Your task to perform on an android device: Go to settings Image 0: 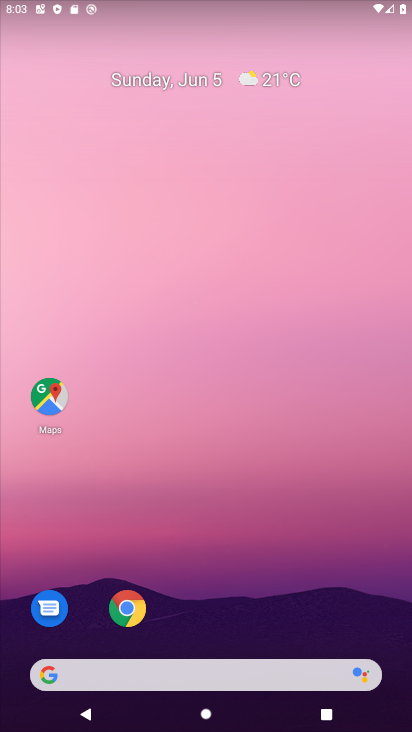
Step 0: press home button
Your task to perform on an android device: Go to settings Image 1: 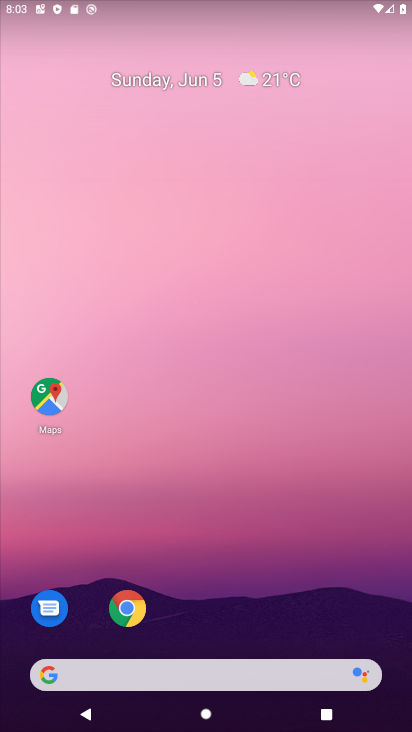
Step 1: drag from (287, 568) to (301, 191)
Your task to perform on an android device: Go to settings Image 2: 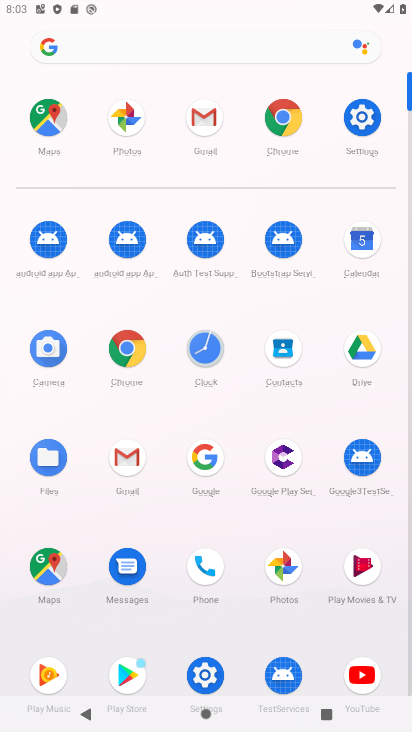
Step 2: click (376, 115)
Your task to perform on an android device: Go to settings Image 3: 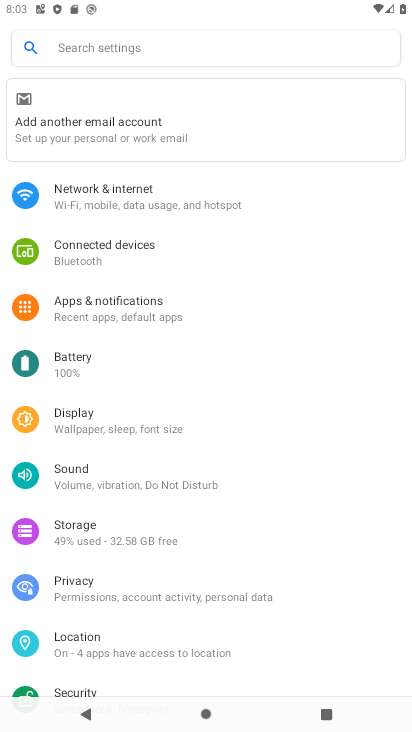
Step 3: task complete